Your task to perform on an android device: See recent photos Image 0: 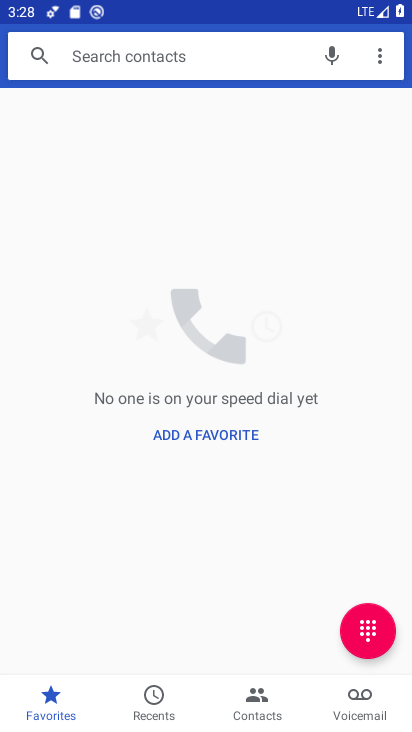
Step 0: press home button
Your task to perform on an android device: See recent photos Image 1: 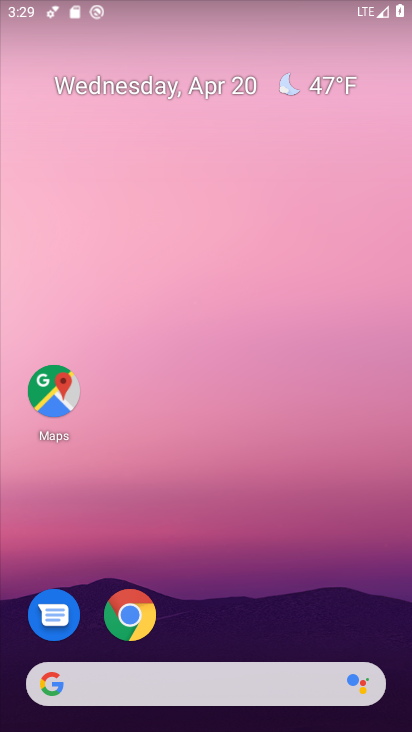
Step 1: drag from (217, 615) to (223, 246)
Your task to perform on an android device: See recent photos Image 2: 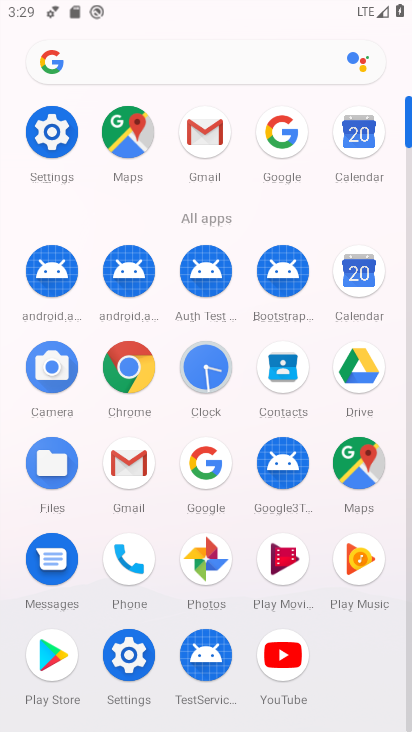
Step 2: click (203, 537)
Your task to perform on an android device: See recent photos Image 3: 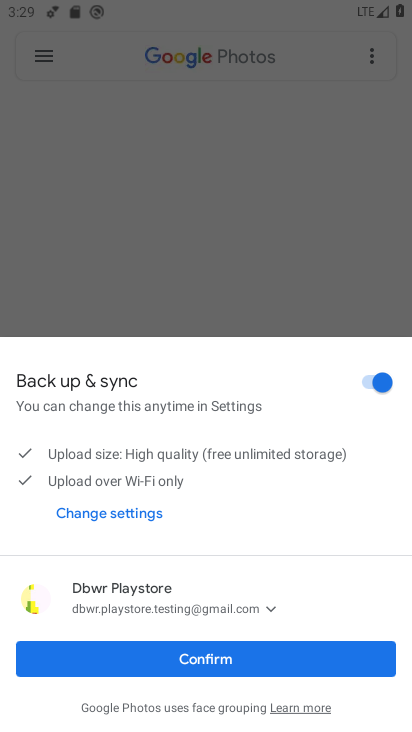
Step 3: click (230, 649)
Your task to perform on an android device: See recent photos Image 4: 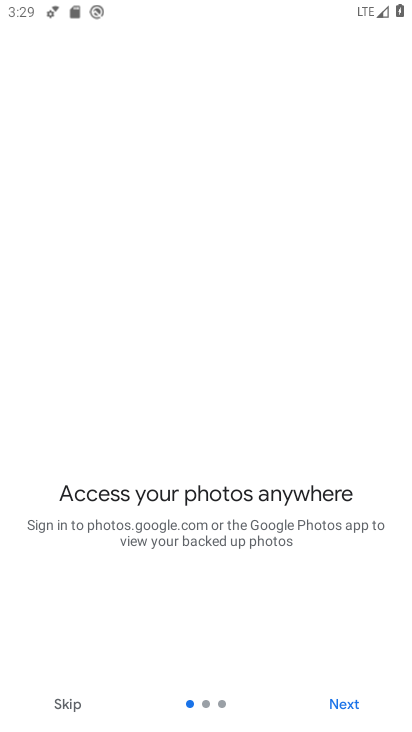
Step 4: click (325, 702)
Your task to perform on an android device: See recent photos Image 5: 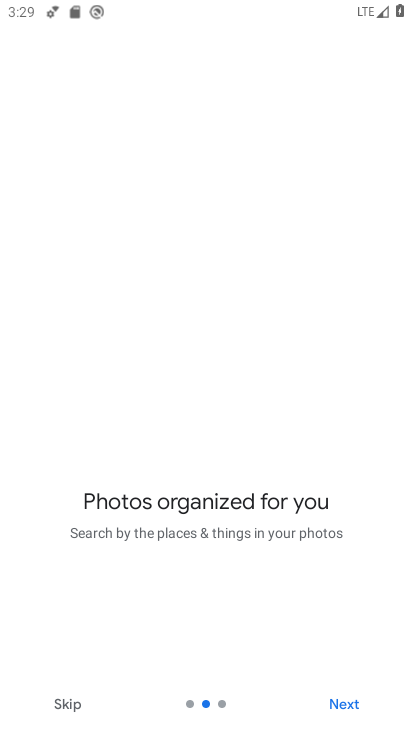
Step 5: click (324, 700)
Your task to perform on an android device: See recent photos Image 6: 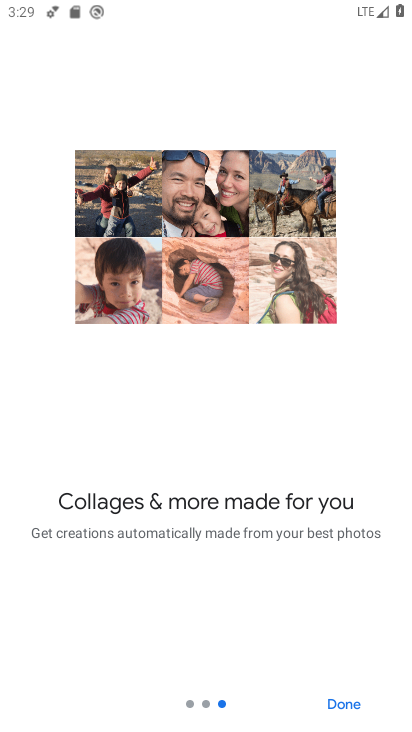
Step 6: click (329, 696)
Your task to perform on an android device: See recent photos Image 7: 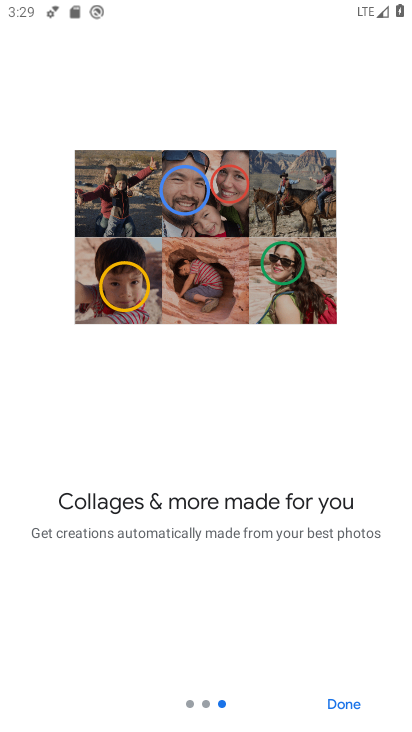
Step 7: click (332, 697)
Your task to perform on an android device: See recent photos Image 8: 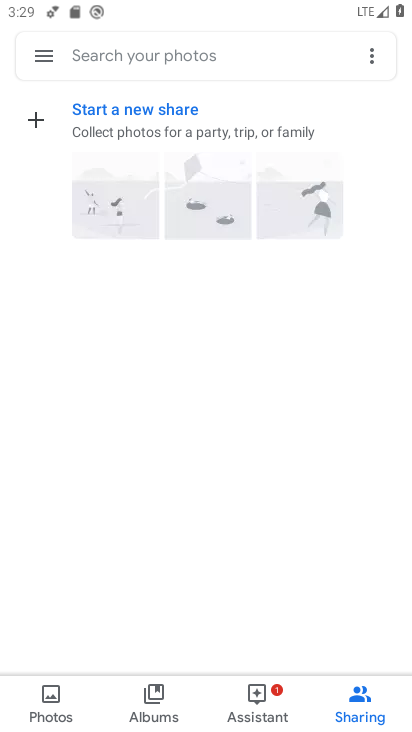
Step 8: click (65, 694)
Your task to perform on an android device: See recent photos Image 9: 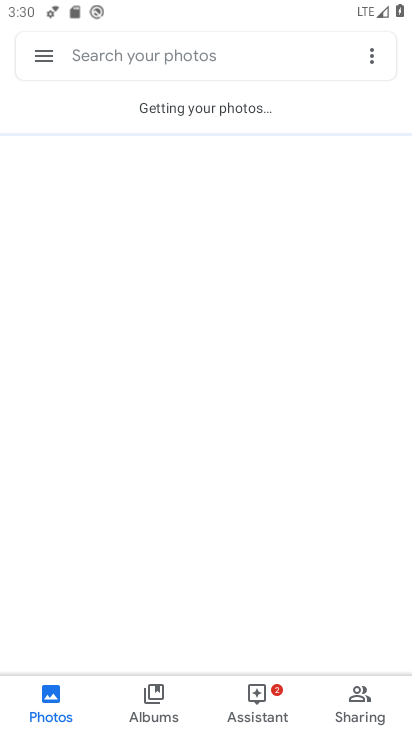
Step 9: task complete